Your task to perform on an android device: Turn off the flashlight Image 0: 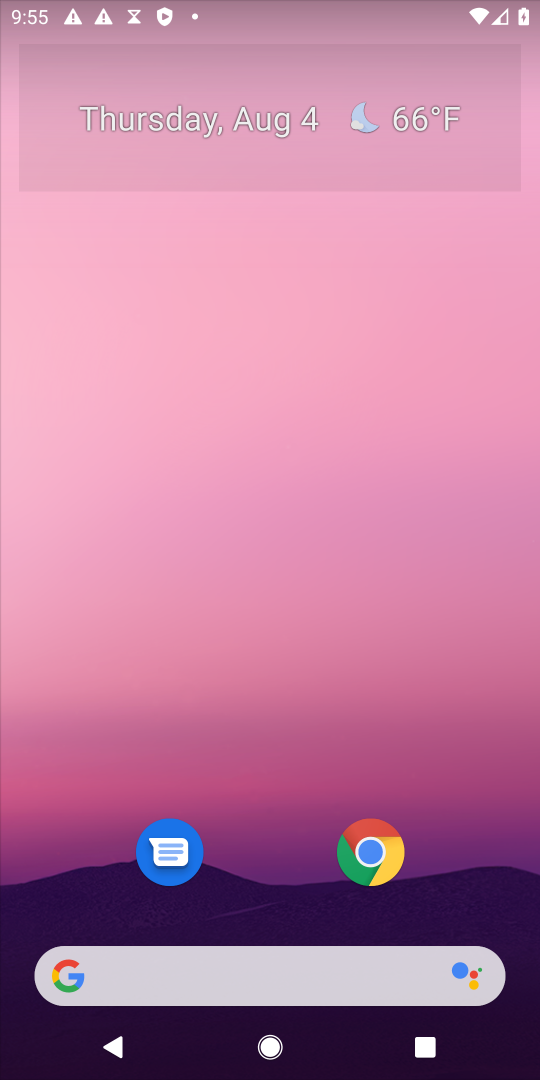
Step 0: drag from (252, 943) to (291, 219)
Your task to perform on an android device: Turn off the flashlight Image 1: 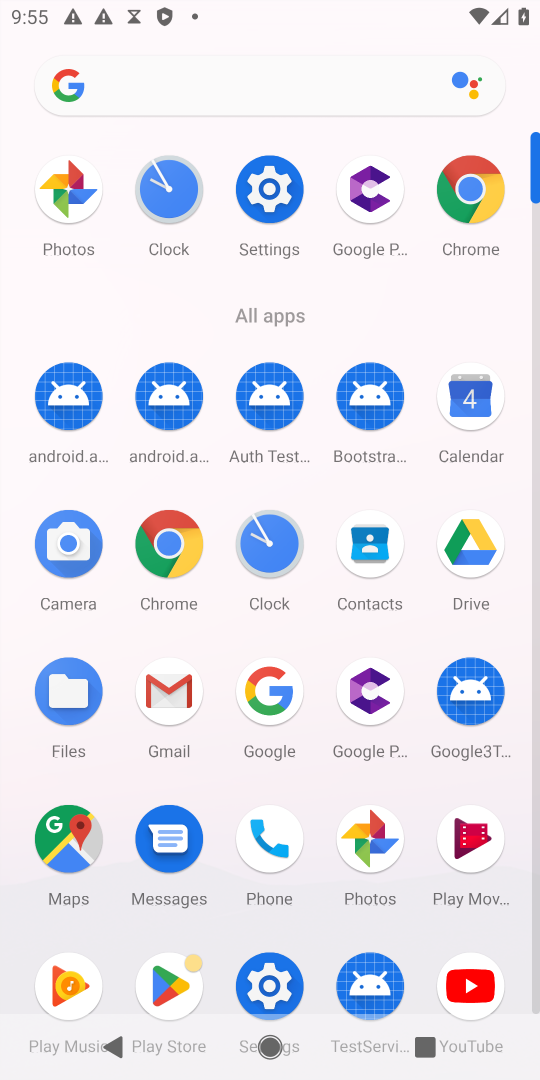
Step 1: click (285, 173)
Your task to perform on an android device: Turn off the flashlight Image 2: 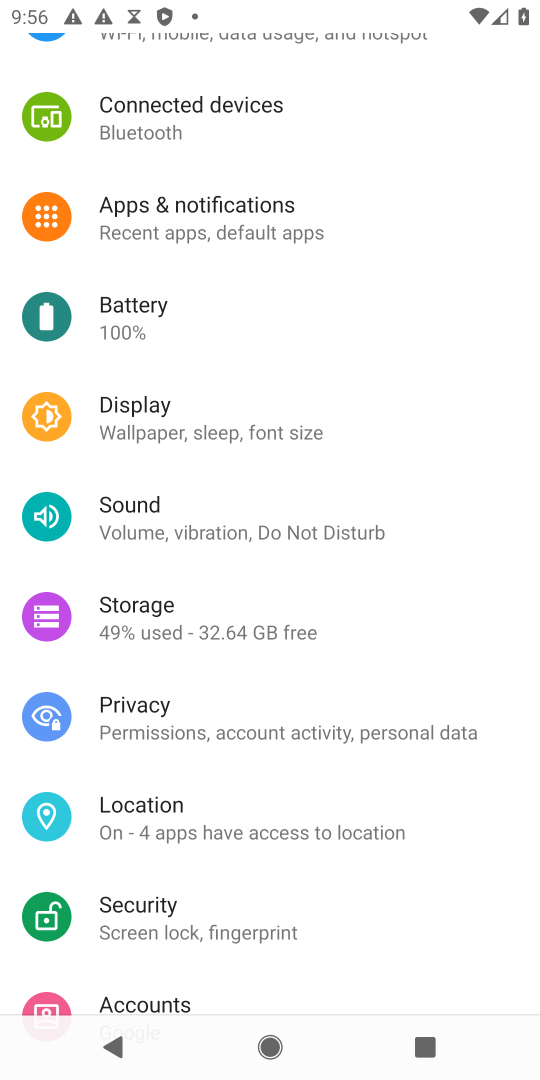
Step 2: task complete